Your task to perform on an android device: search for starred emails in the gmail app Image 0: 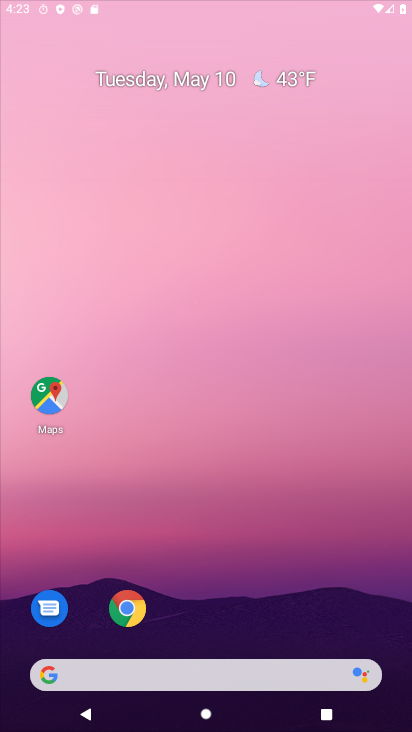
Step 0: click (133, 17)
Your task to perform on an android device: search for starred emails in the gmail app Image 1: 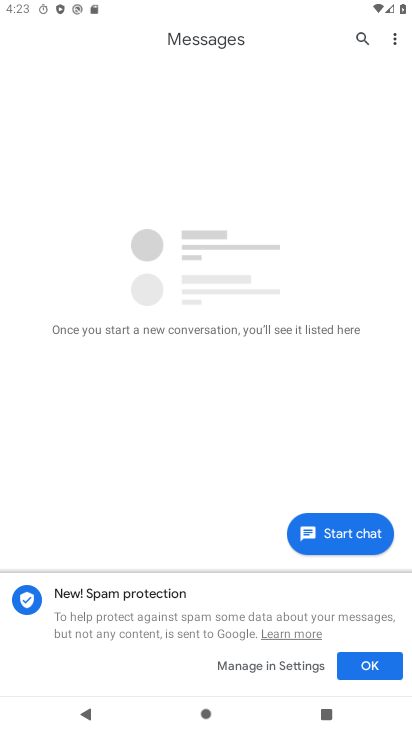
Step 1: press back button
Your task to perform on an android device: search for starred emails in the gmail app Image 2: 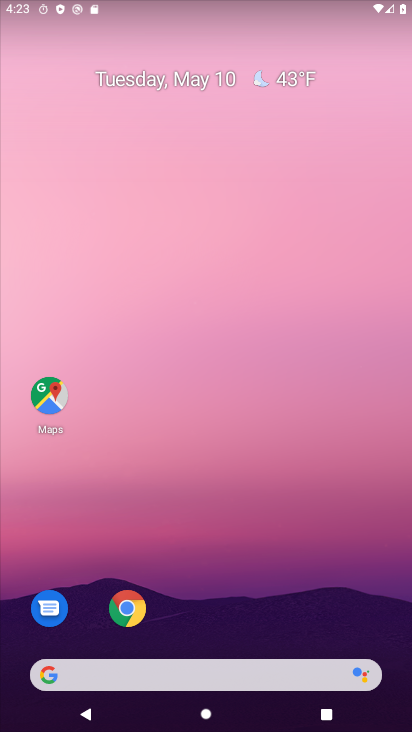
Step 2: drag from (331, 651) to (85, 80)
Your task to perform on an android device: search for starred emails in the gmail app Image 3: 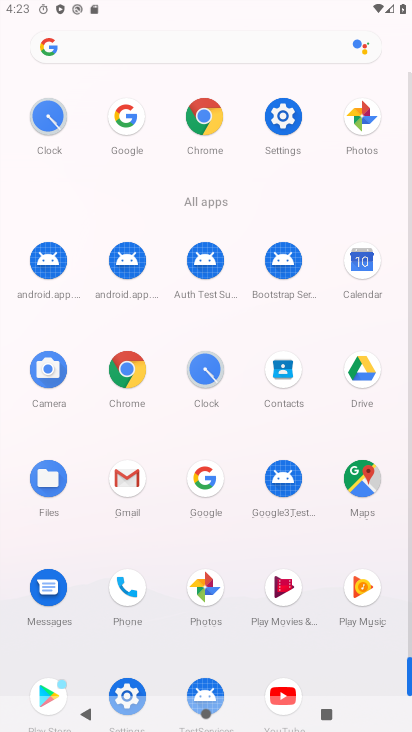
Step 3: click (123, 479)
Your task to perform on an android device: search for starred emails in the gmail app Image 4: 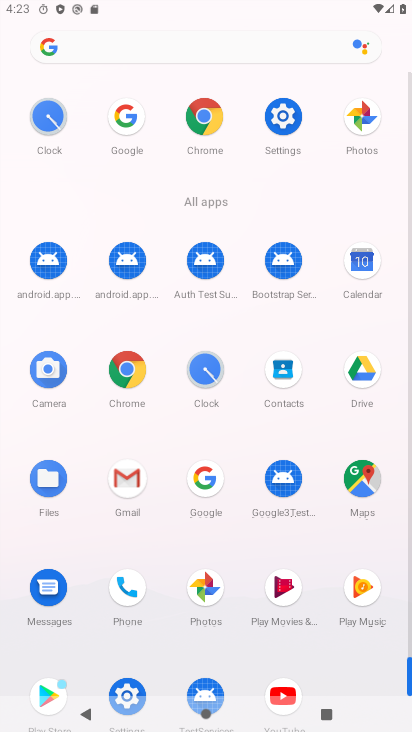
Step 4: click (123, 479)
Your task to perform on an android device: search for starred emails in the gmail app Image 5: 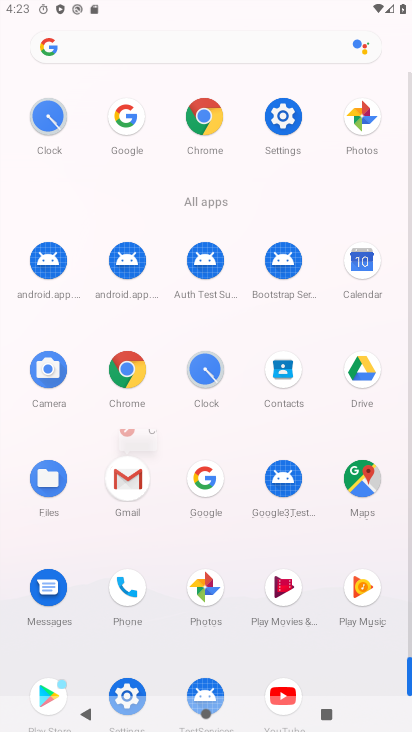
Step 5: click (120, 483)
Your task to perform on an android device: search for starred emails in the gmail app Image 6: 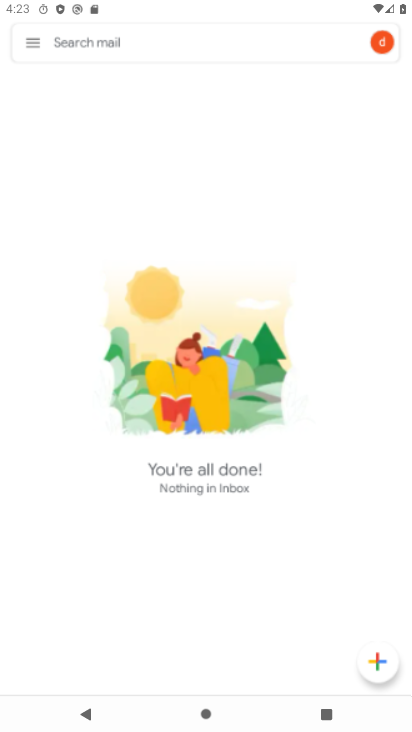
Step 6: click (123, 483)
Your task to perform on an android device: search for starred emails in the gmail app Image 7: 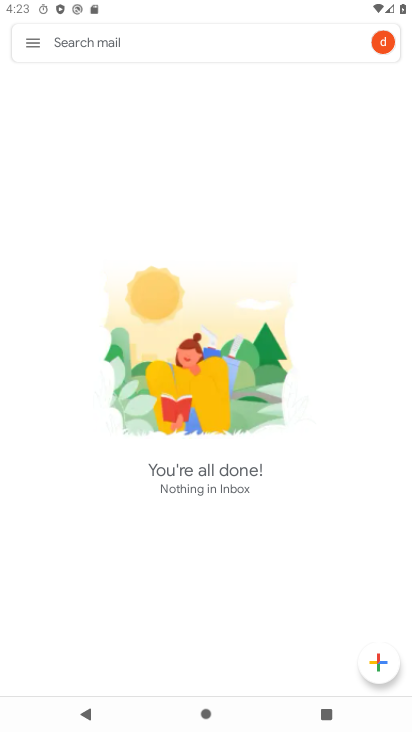
Step 7: click (123, 483)
Your task to perform on an android device: search for starred emails in the gmail app Image 8: 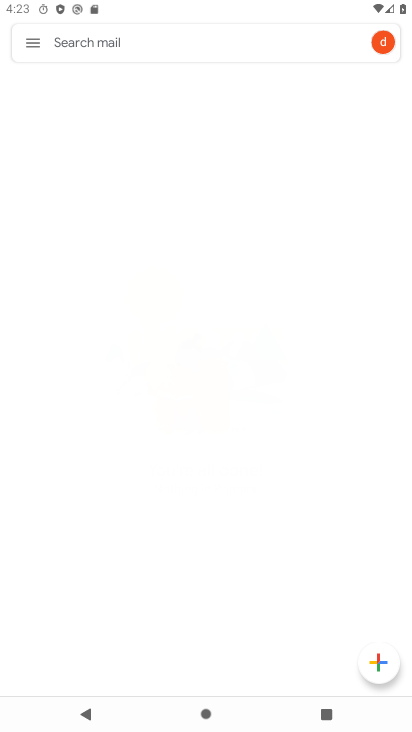
Step 8: drag from (33, 40) to (33, 329)
Your task to perform on an android device: search for starred emails in the gmail app Image 9: 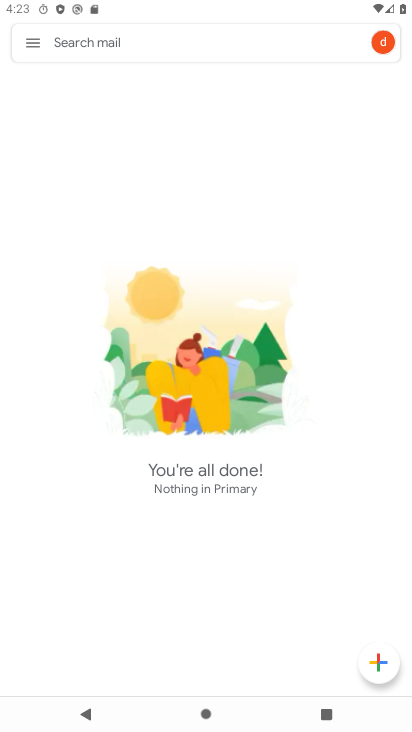
Step 9: click (32, 47)
Your task to perform on an android device: search for starred emails in the gmail app Image 10: 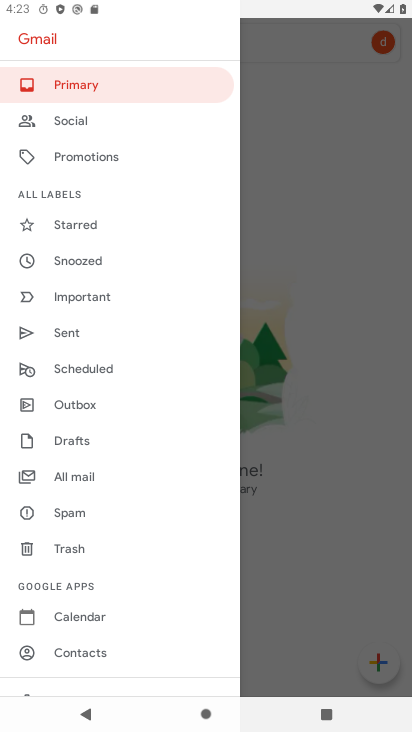
Step 10: click (85, 218)
Your task to perform on an android device: search for starred emails in the gmail app Image 11: 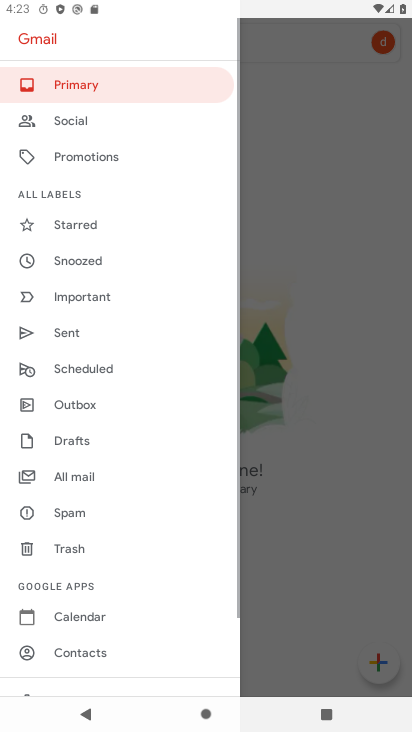
Step 11: click (86, 219)
Your task to perform on an android device: search for starred emails in the gmail app Image 12: 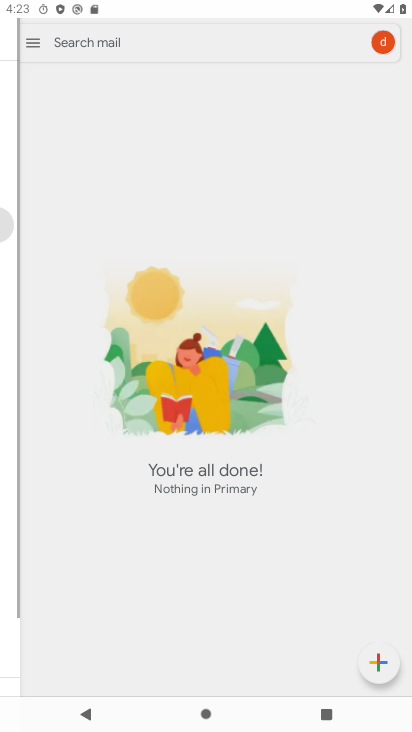
Step 12: click (86, 219)
Your task to perform on an android device: search for starred emails in the gmail app Image 13: 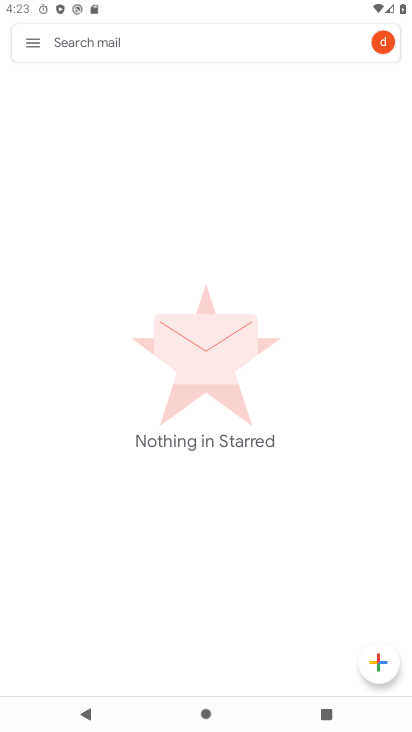
Step 13: task complete